Your task to perform on an android device: Open calendar and show me the second week of next month Image 0: 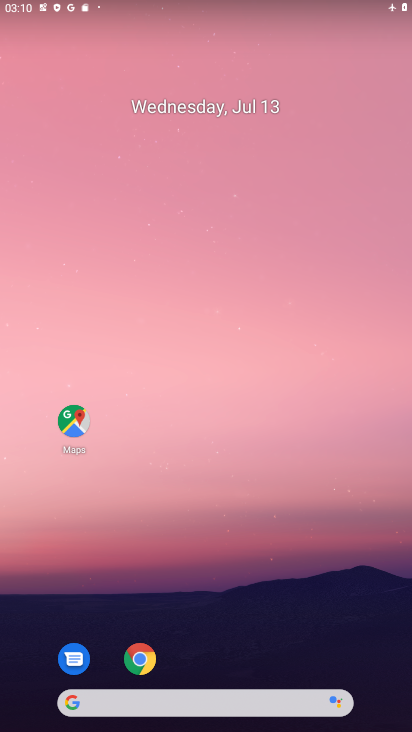
Step 0: drag from (288, 616) to (296, 105)
Your task to perform on an android device: Open calendar and show me the second week of next month Image 1: 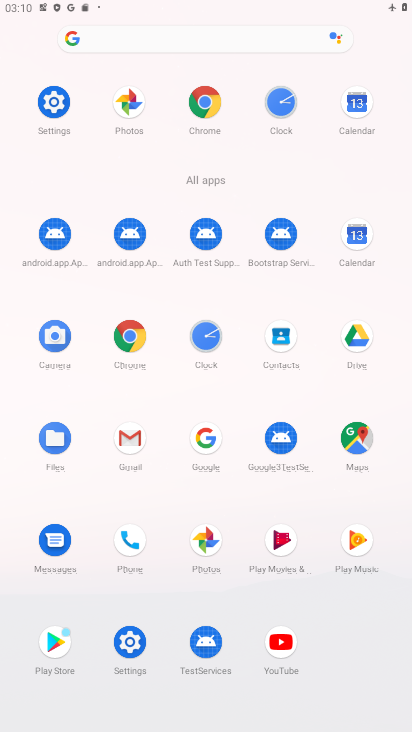
Step 1: click (355, 110)
Your task to perform on an android device: Open calendar and show me the second week of next month Image 2: 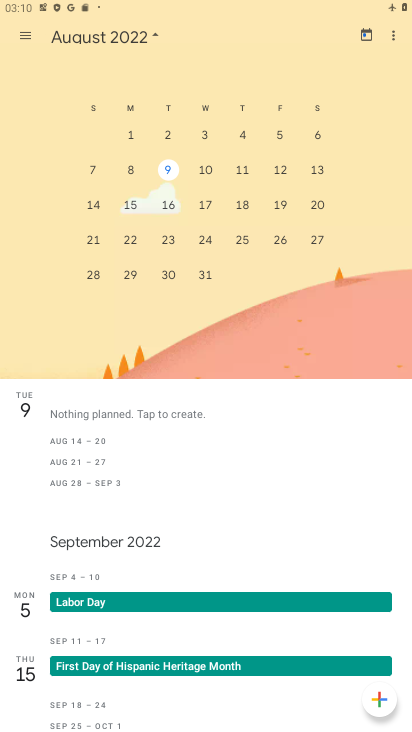
Step 2: task complete